Your task to perform on an android device: clear history in the chrome app Image 0: 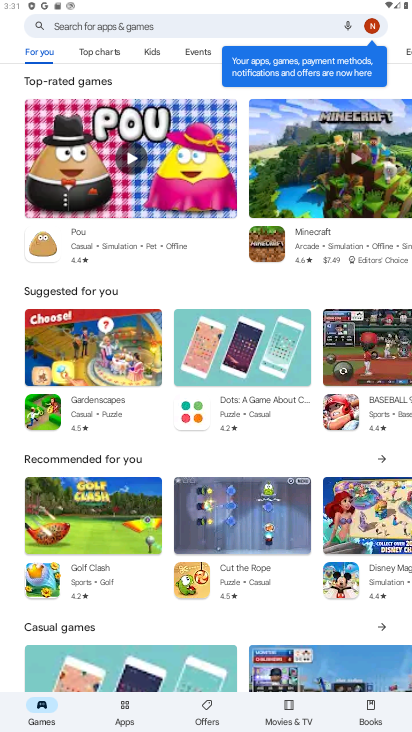
Step 0: press home button
Your task to perform on an android device: clear history in the chrome app Image 1: 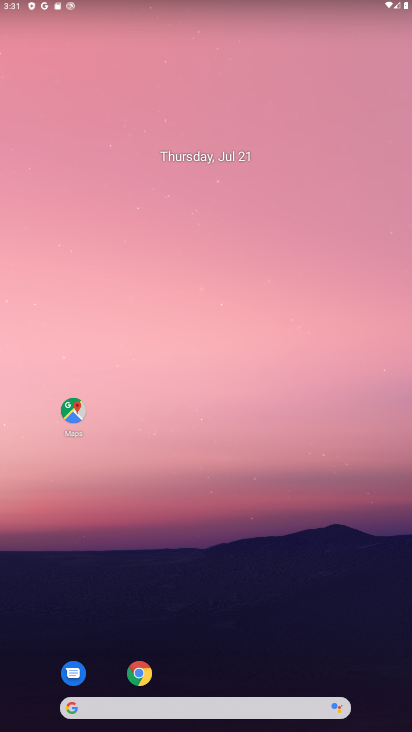
Step 1: click (142, 675)
Your task to perform on an android device: clear history in the chrome app Image 2: 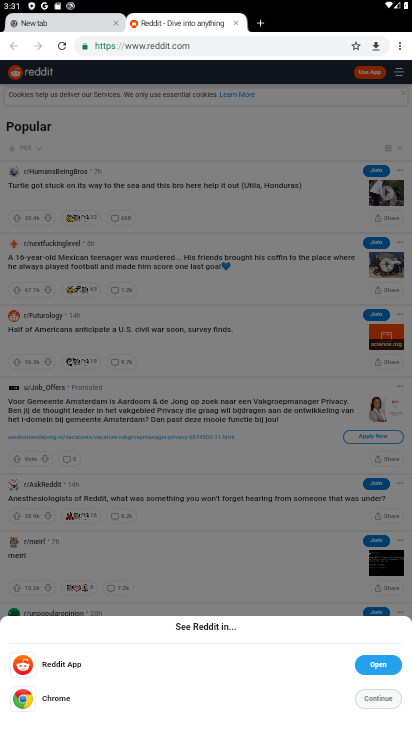
Step 2: click (398, 48)
Your task to perform on an android device: clear history in the chrome app Image 3: 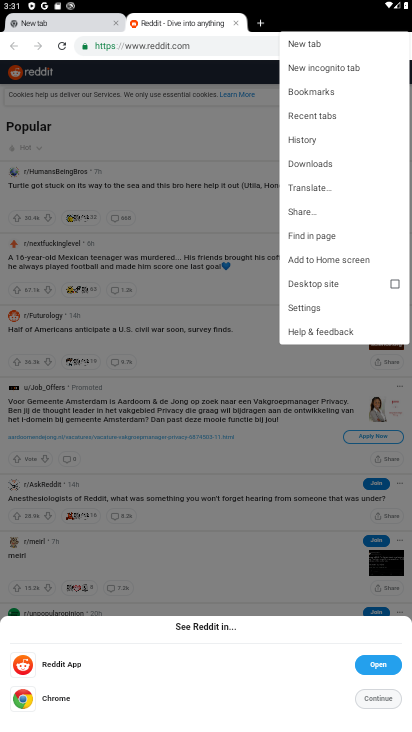
Step 3: click (313, 303)
Your task to perform on an android device: clear history in the chrome app Image 4: 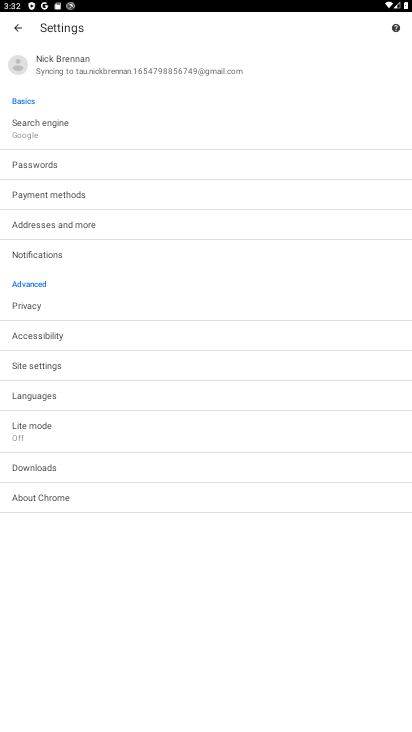
Step 4: click (36, 303)
Your task to perform on an android device: clear history in the chrome app Image 5: 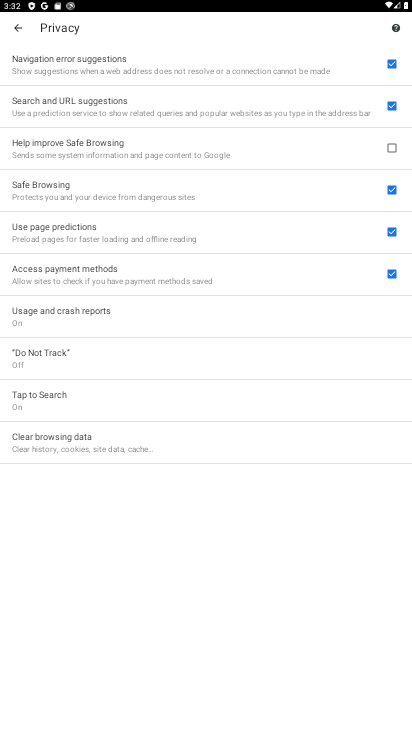
Step 5: click (78, 442)
Your task to perform on an android device: clear history in the chrome app Image 6: 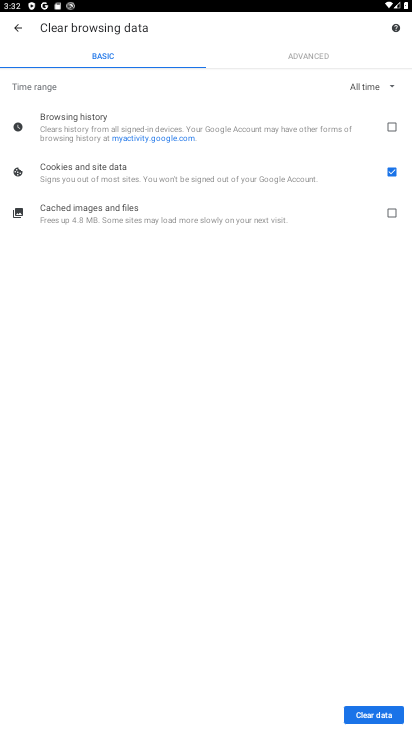
Step 6: click (389, 216)
Your task to perform on an android device: clear history in the chrome app Image 7: 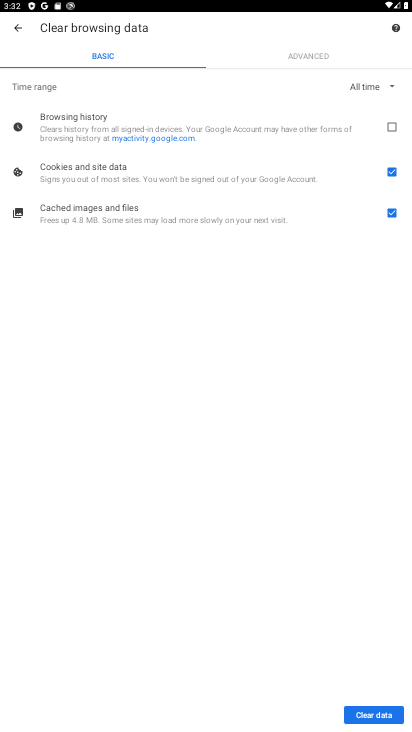
Step 7: click (396, 124)
Your task to perform on an android device: clear history in the chrome app Image 8: 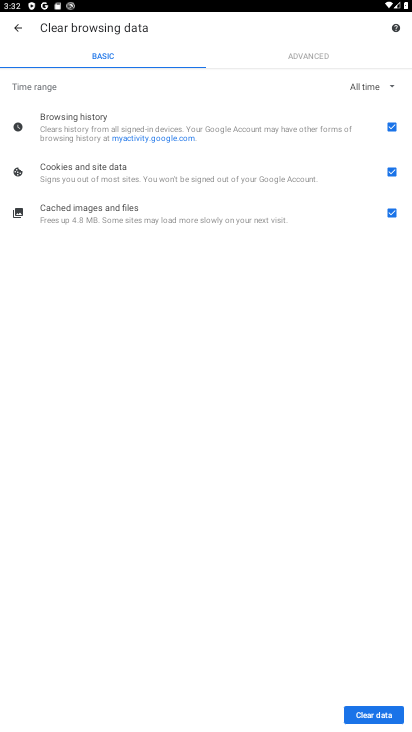
Step 8: click (384, 721)
Your task to perform on an android device: clear history in the chrome app Image 9: 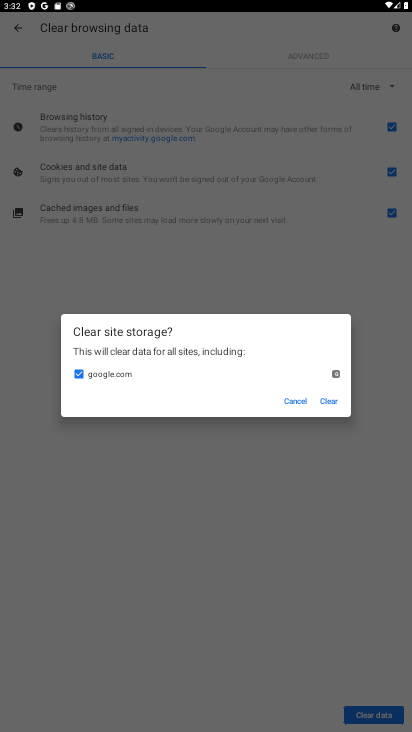
Step 9: click (334, 401)
Your task to perform on an android device: clear history in the chrome app Image 10: 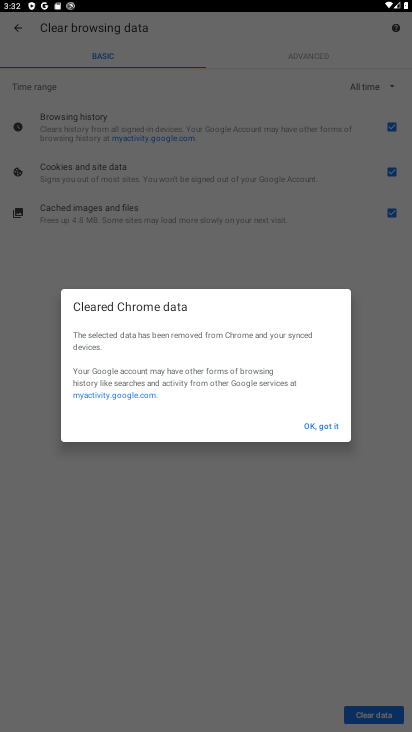
Step 10: click (328, 430)
Your task to perform on an android device: clear history in the chrome app Image 11: 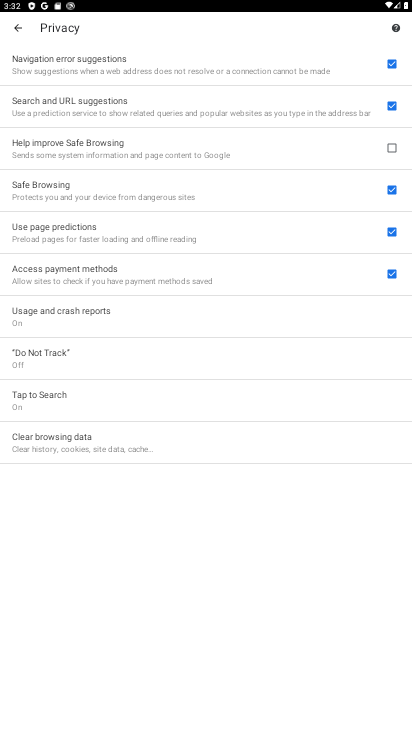
Step 11: task complete